Your task to perform on an android device: open a new tab in the chrome app Image 0: 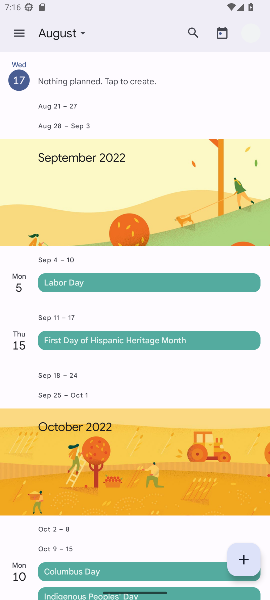
Step 0: press home button
Your task to perform on an android device: open a new tab in the chrome app Image 1: 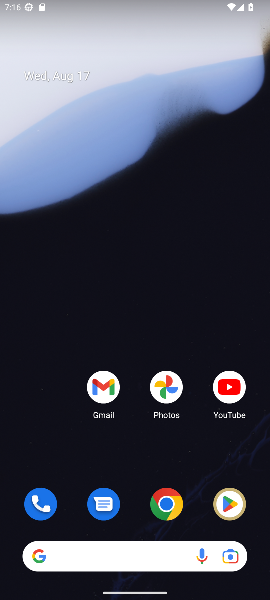
Step 1: drag from (145, 419) to (139, 11)
Your task to perform on an android device: open a new tab in the chrome app Image 2: 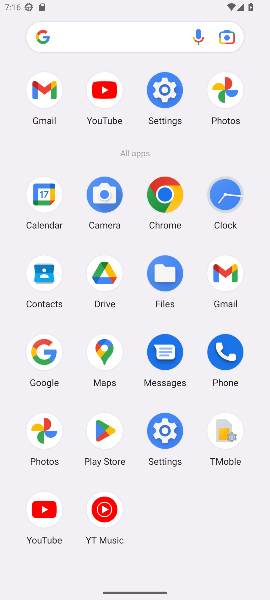
Step 2: click (166, 203)
Your task to perform on an android device: open a new tab in the chrome app Image 3: 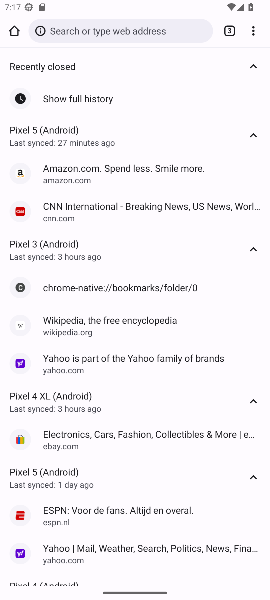
Step 3: click (236, 36)
Your task to perform on an android device: open a new tab in the chrome app Image 4: 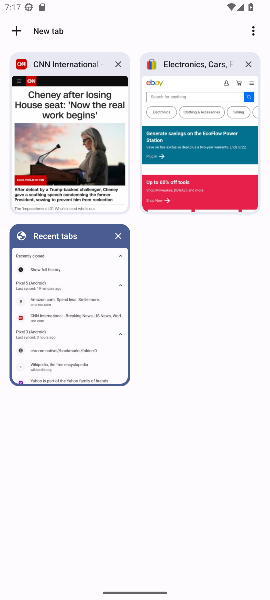
Step 4: click (37, 19)
Your task to perform on an android device: open a new tab in the chrome app Image 5: 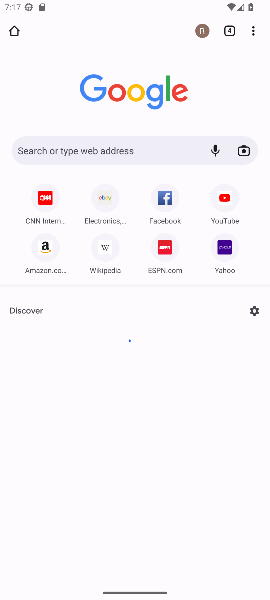
Step 5: task complete